Your task to perform on an android device: Toggle the flashlight Image 0: 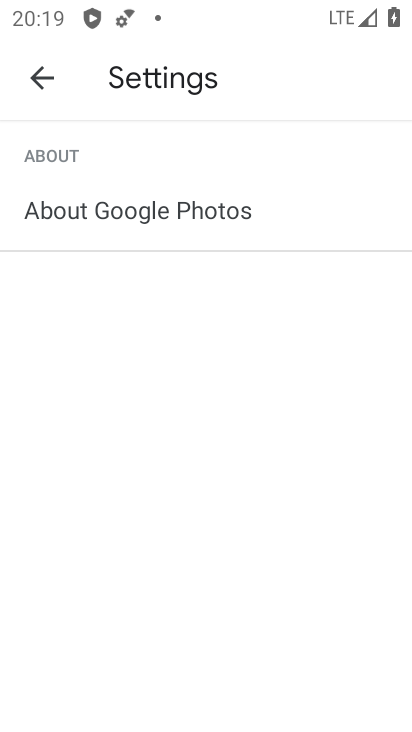
Step 0: press home button
Your task to perform on an android device: Toggle the flashlight Image 1: 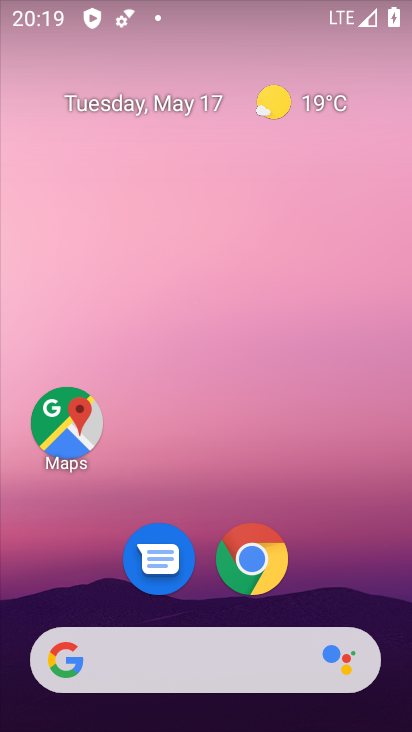
Step 1: drag from (218, 621) to (150, 16)
Your task to perform on an android device: Toggle the flashlight Image 2: 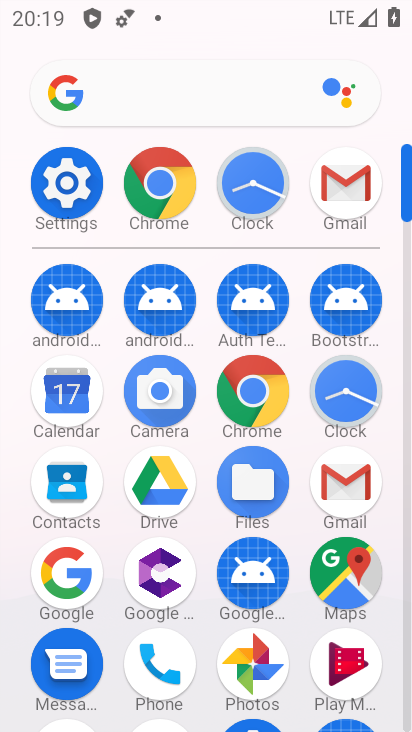
Step 2: click (72, 187)
Your task to perform on an android device: Toggle the flashlight Image 3: 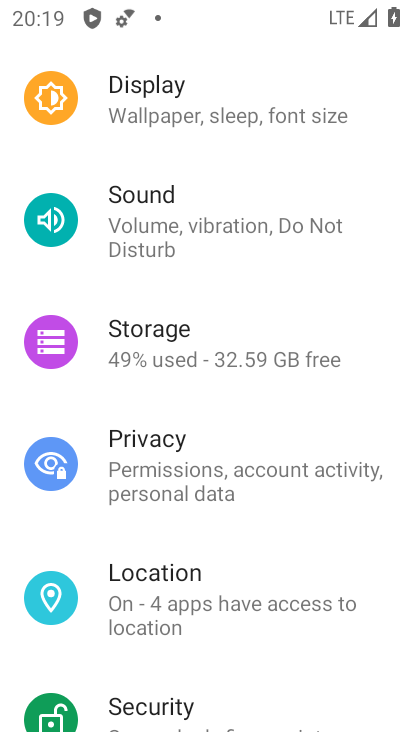
Step 3: drag from (185, 124) to (409, 645)
Your task to perform on an android device: Toggle the flashlight Image 4: 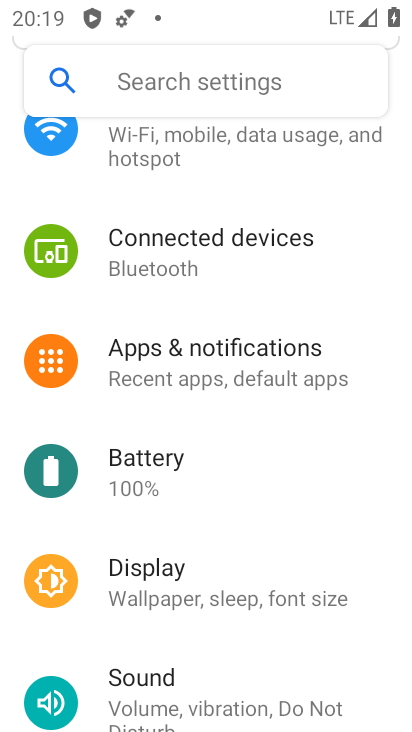
Step 4: click (198, 80)
Your task to perform on an android device: Toggle the flashlight Image 5: 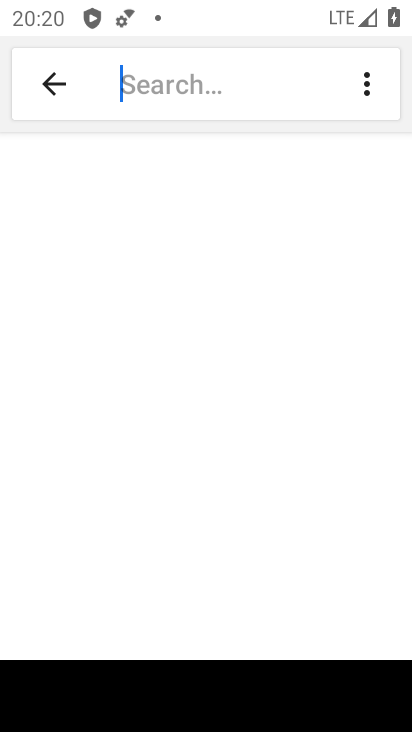
Step 5: type "flashlight"
Your task to perform on an android device: Toggle the flashlight Image 6: 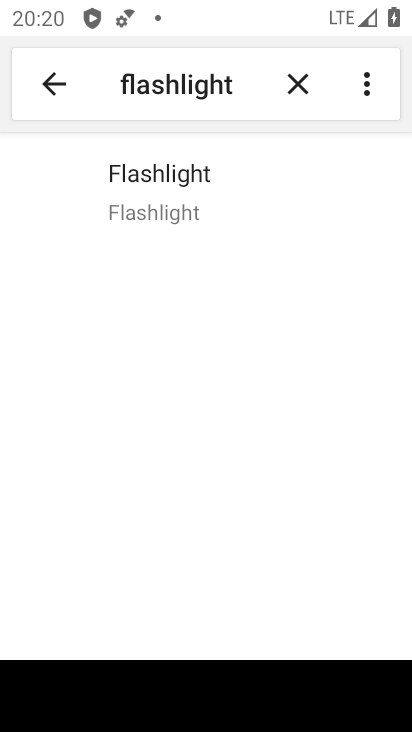
Step 6: click (136, 223)
Your task to perform on an android device: Toggle the flashlight Image 7: 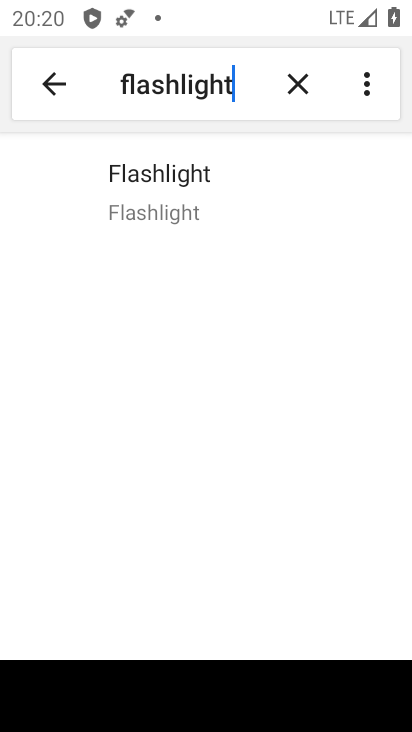
Step 7: click (114, 190)
Your task to perform on an android device: Toggle the flashlight Image 8: 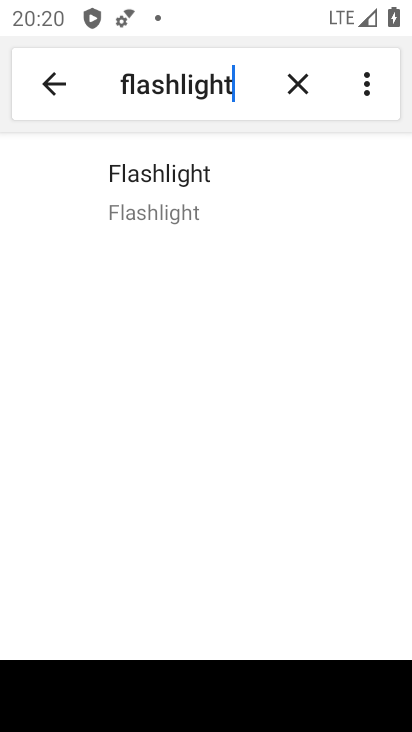
Step 8: task complete